Your task to perform on an android device: create a new album in the google photos Image 0: 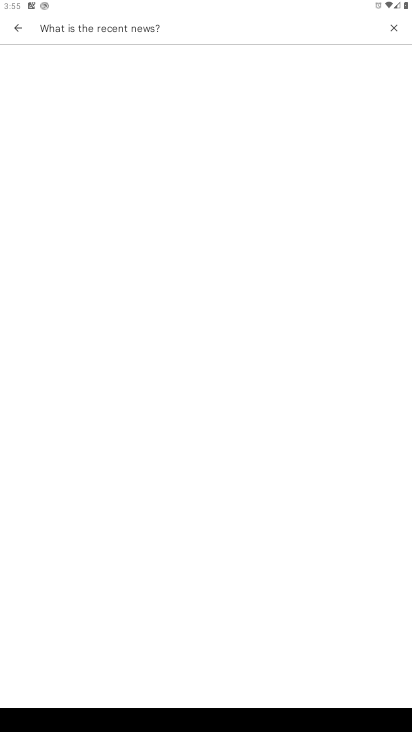
Step 0: press home button
Your task to perform on an android device: create a new album in the google photos Image 1: 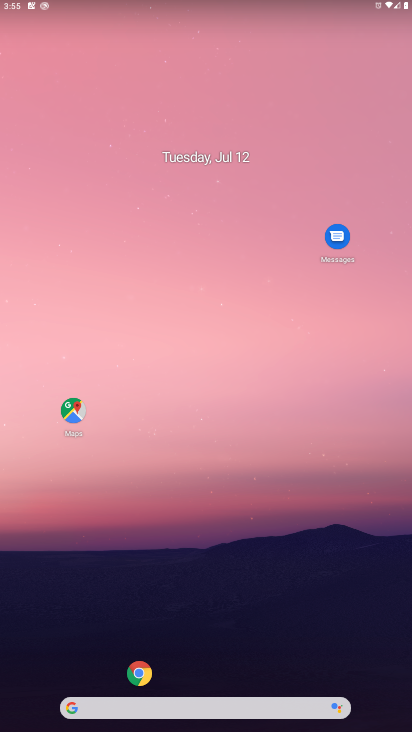
Step 1: drag from (24, 698) to (316, 212)
Your task to perform on an android device: create a new album in the google photos Image 2: 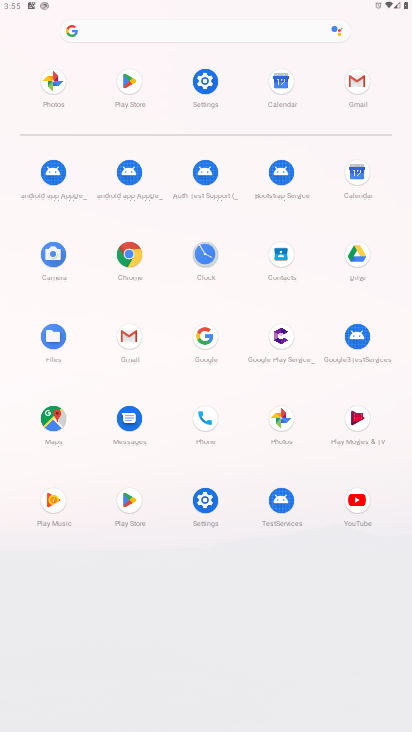
Step 2: click (279, 425)
Your task to perform on an android device: create a new album in the google photos Image 3: 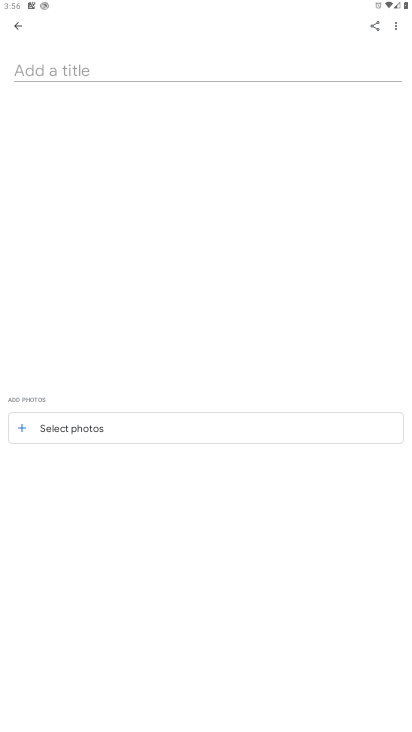
Step 3: task complete